Your task to perform on an android device: toggle pop-ups in chrome Image 0: 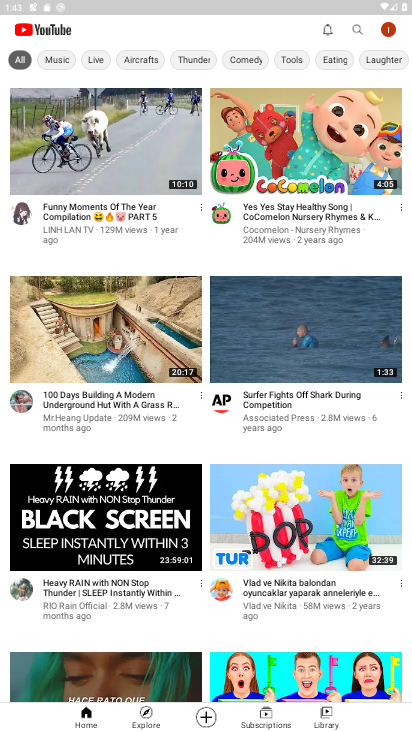
Step 0: drag from (205, 626) to (231, 271)
Your task to perform on an android device: toggle pop-ups in chrome Image 1: 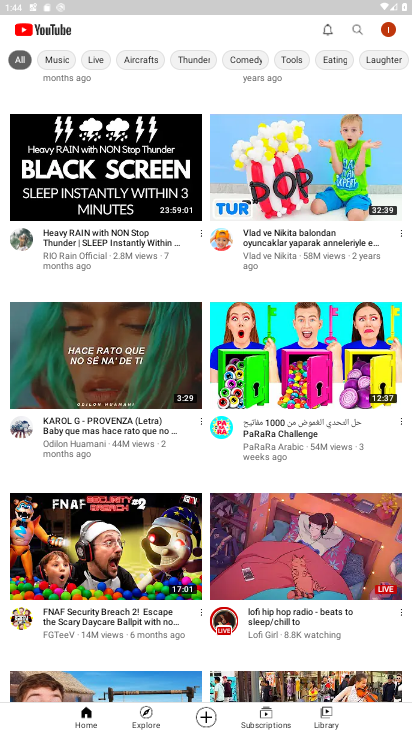
Step 1: drag from (196, 104) to (213, 516)
Your task to perform on an android device: toggle pop-ups in chrome Image 2: 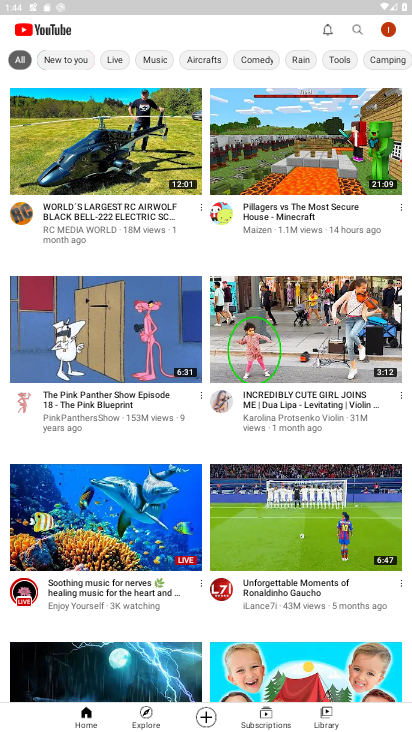
Step 2: drag from (207, 73) to (247, 487)
Your task to perform on an android device: toggle pop-ups in chrome Image 3: 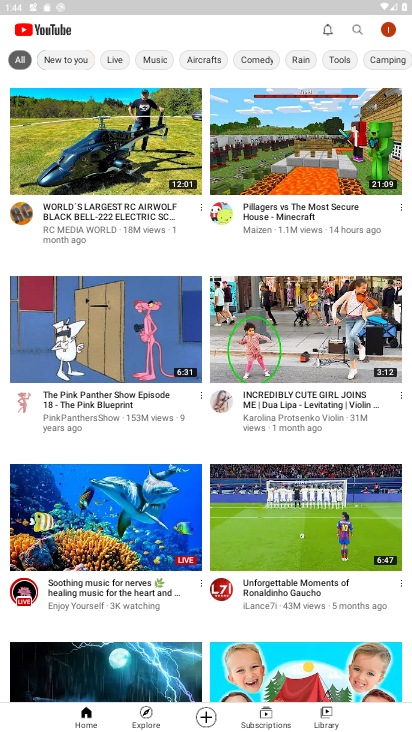
Step 3: press home button
Your task to perform on an android device: toggle pop-ups in chrome Image 4: 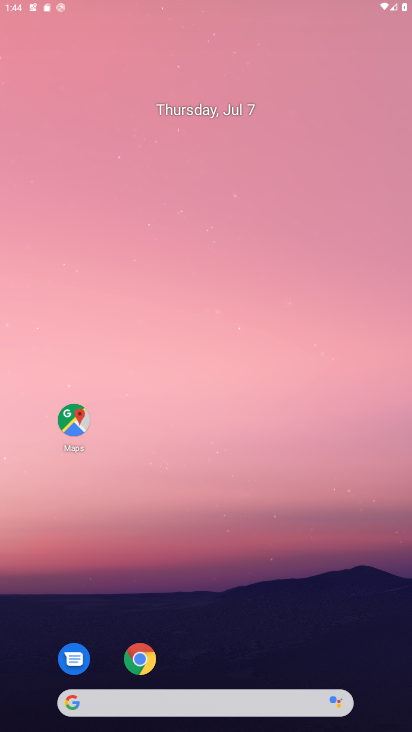
Step 4: drag from (207, 651) to (270, 83)
Your task to perform on an android device: toggle pop-ups in chrome Image 5: 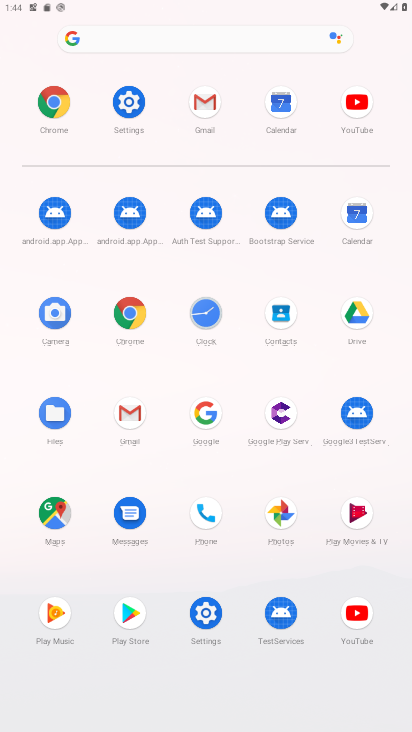
Step 5: click (51, 101)
Your task to perform on an android device: toggle pop-ups in chrome Image 6: 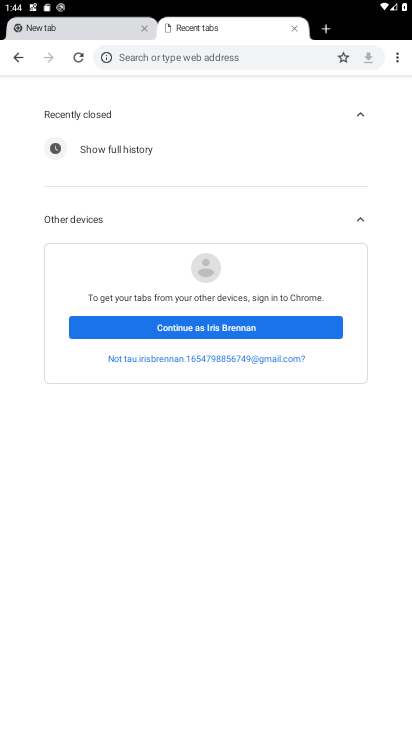
Step 6: drag from (403, 58) to (300, 267)
Your task to perform on an android device: toggle pop-ups in chrome Image 7: 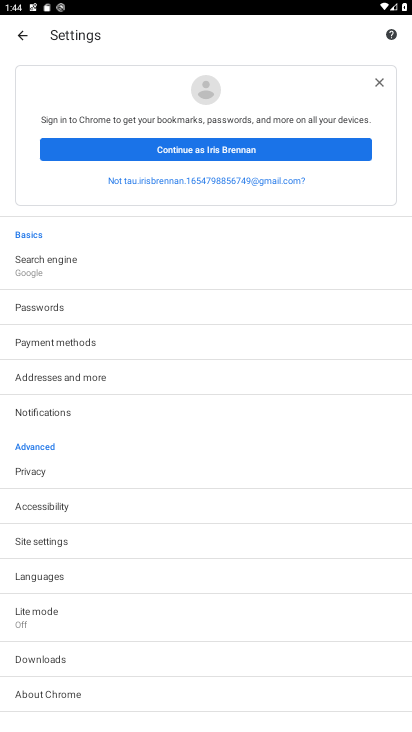
Step 7: drag from (206, 586) to (264, 206)
Your task to perform on an android device: toggle pop-ups in chrome Image 8: 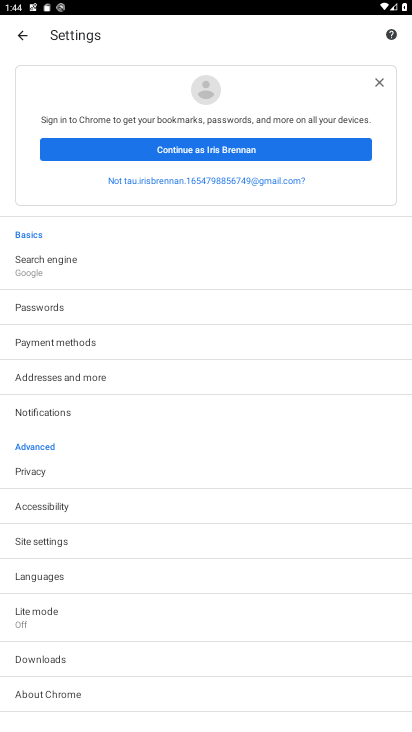
Step 8: drag from (215, 614) to (211, 430)
Your task to perform on an android device: toggle pop-ups in chrome Image 9: 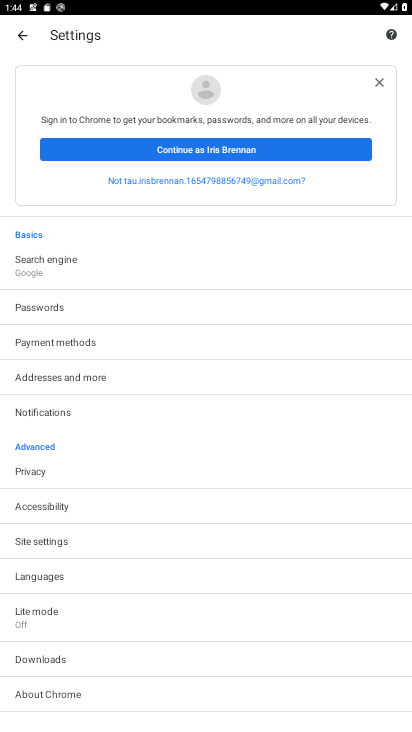
Step 9: drag from (132, 673) to (209, 335)
Your task to perform on an android device: toggle pop-ups in chrome Image 10: 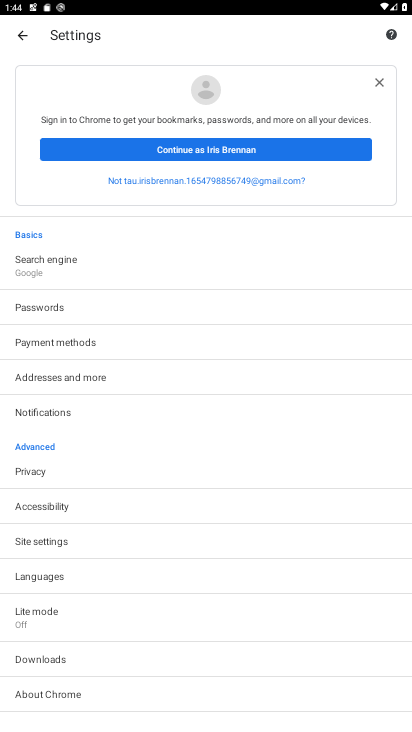
Step 10: drag from (135, 659) to (145, 375)
Your task to perform on an android device: toggle pop-ups in chrome Image 11: 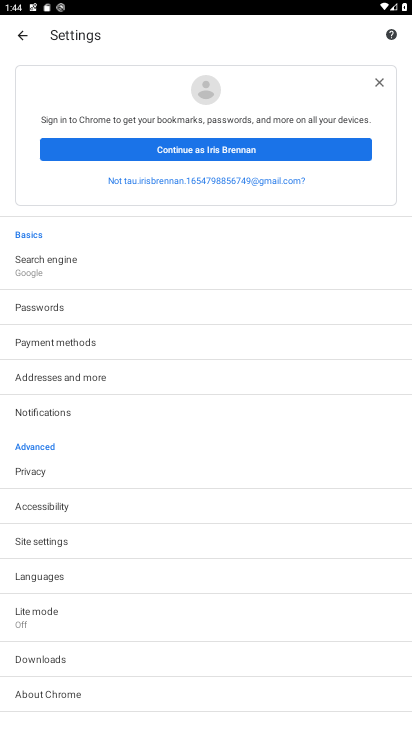
Step 11: click (130, 276)
Your task to perform on an android device: toggle pop-ups in chrome Image 12: 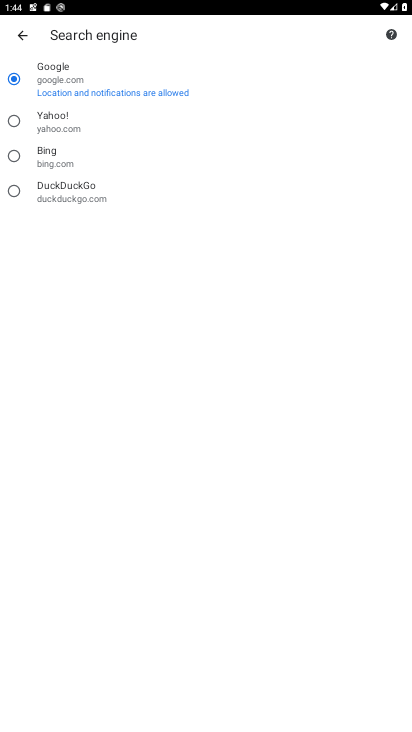
Step 12: click (22, 34)
Your task to perform on an android device: toggle pop-ups in chrome Image 13: 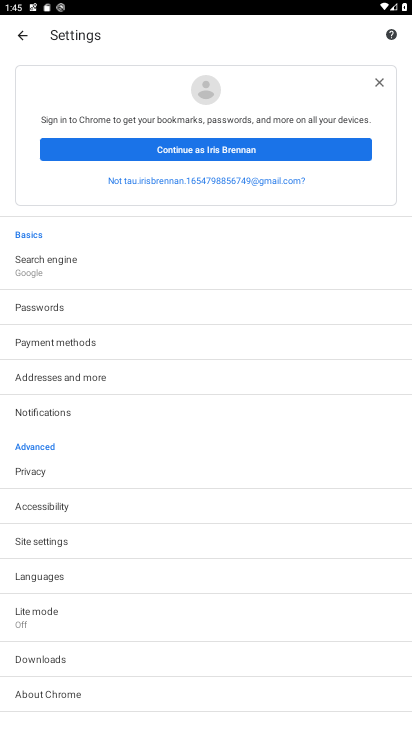
Step 13: click (61, 534)
Your task to perform on an android device: toggle pop-ups in chrome Image 14: 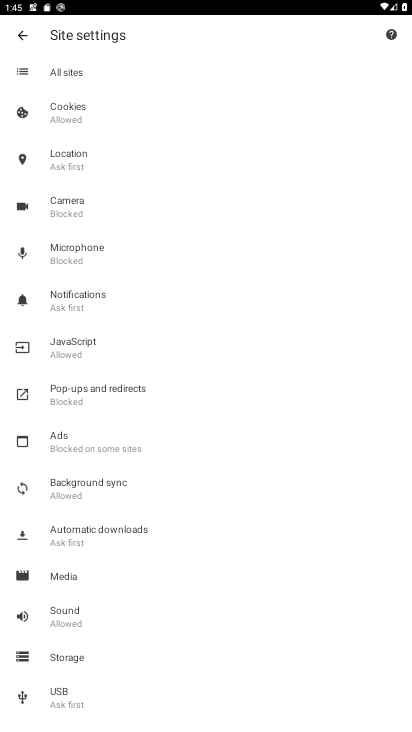
Step 14: click (132, 399)
Your task to perform on an android device: toggle pop-ups in chrome Image 15: 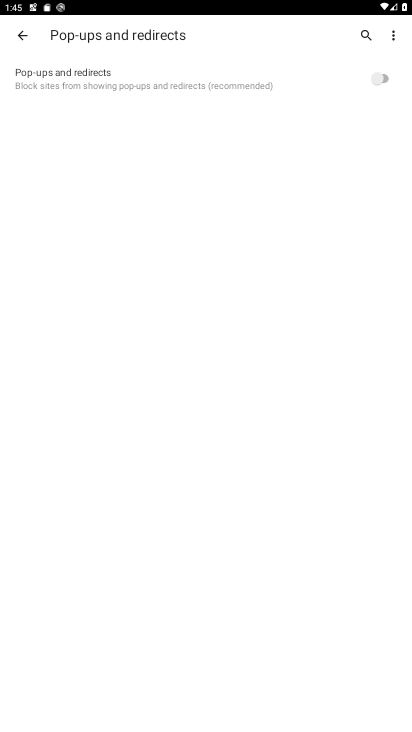
Step 15: drag from (284, 468) to (322, 120)
Your task to perform on an android device: toggle pop-ups in chrome Image 16: 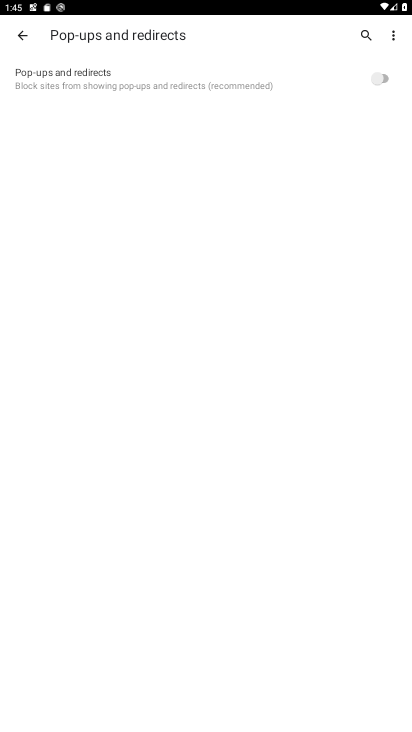
Step 16: click (376, 80)
Your task to perform on an android device: toggle pop-ups in chrome Image 17: 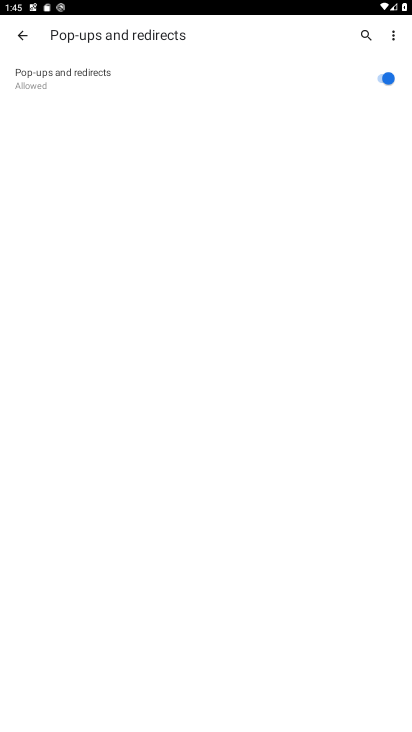
Step 17: task complete